Your task to perform on an android device: Add "alienware area 51" to the cart on ebay.com, then select checkout. Image 0: 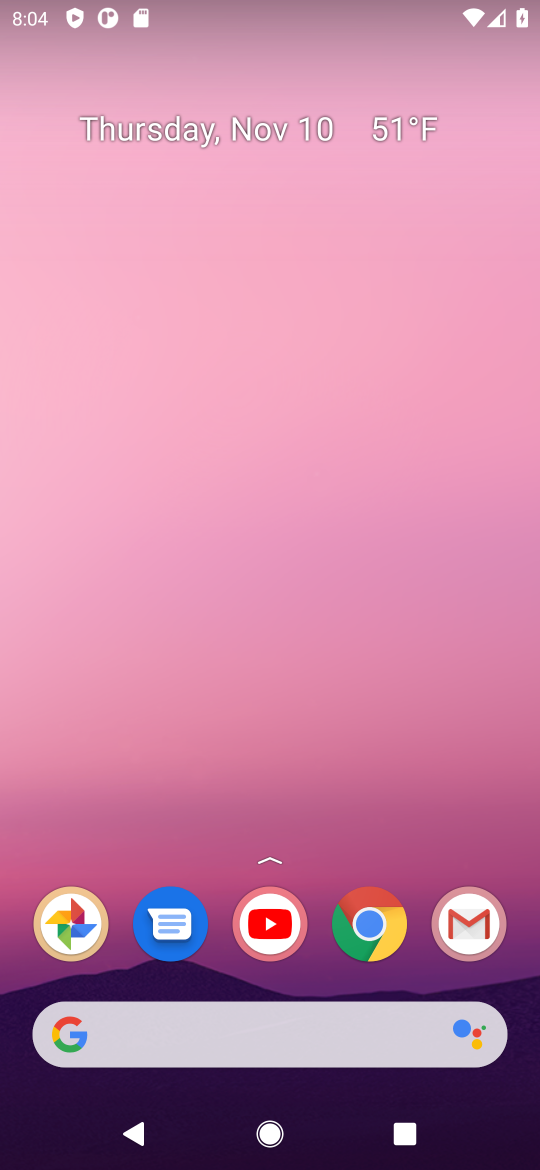
Step 0: click (380, 926)
Your task to perform on an android device: Add "alienware area 51" to the cart on ebay.com, then select checkout. Image 1: 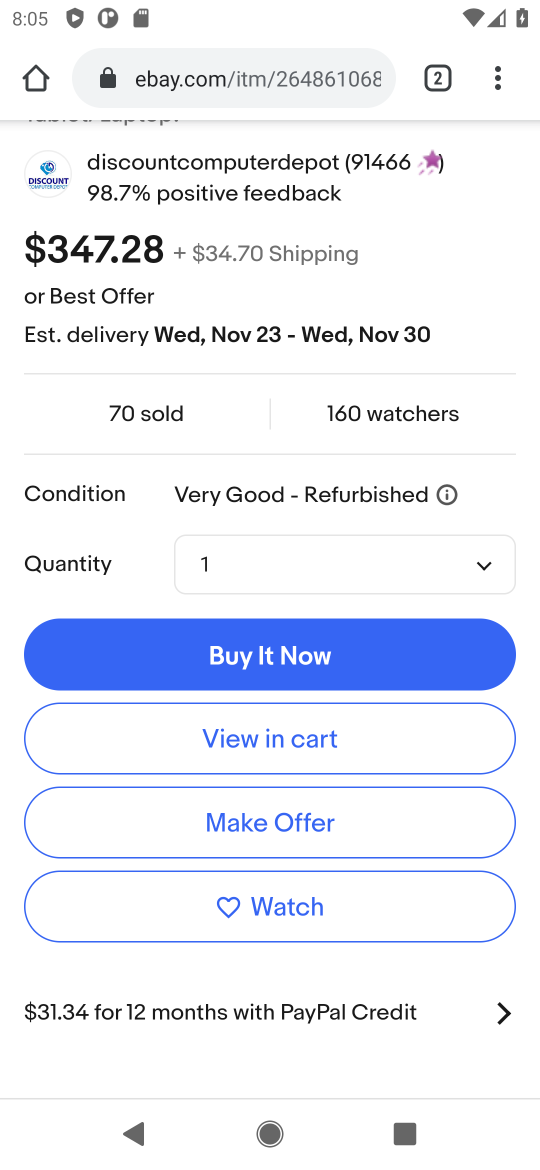
Step 1: drag from (224, 299) to (250, 802)
Your task to perform on an android device: Add "alienware area 51" to the cart on ebay.com, then select checkout. Image 2: 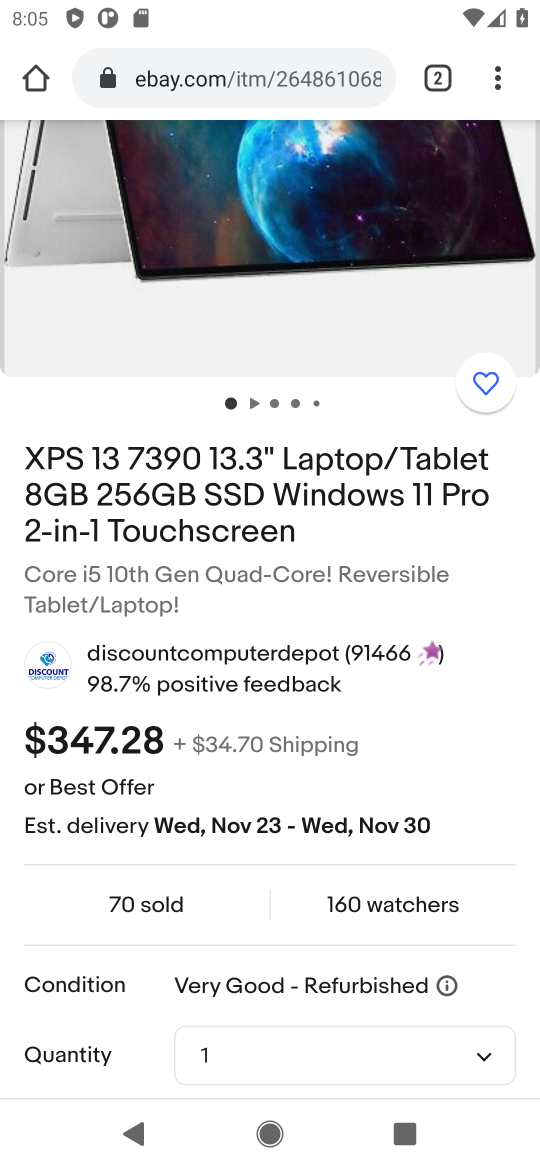
Step 2: press home button
Your task to perform on an android device: Add "alienware area 51" to the cart on ebay.com, then select checkout. Image 3: 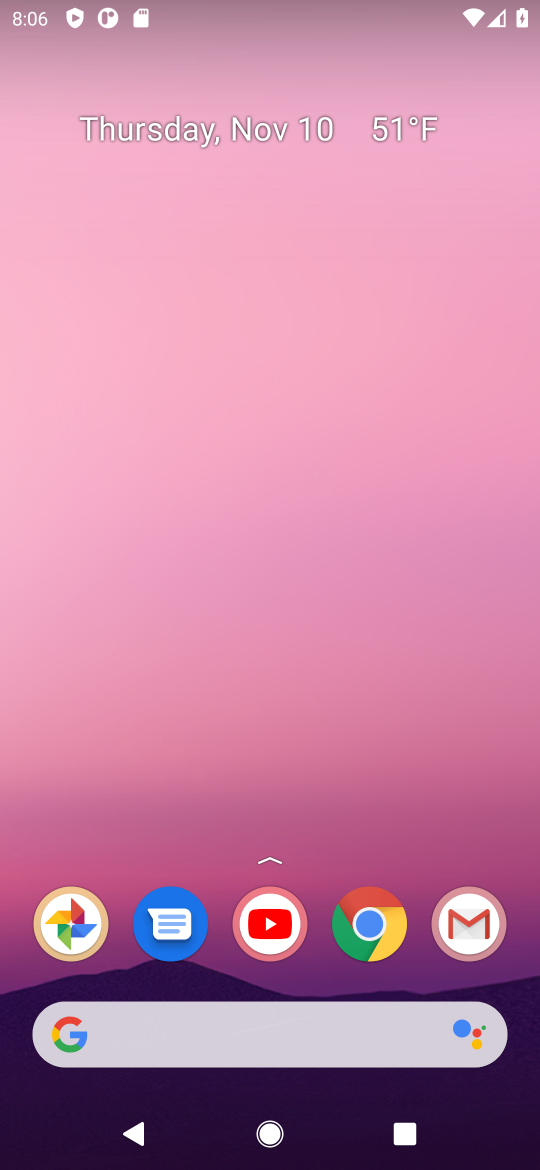
Step 3: click (370, 931)
Your task to perform on an android device: Add "alienware area 51" to the cart on ebay.com, then select checkout. Image 4: 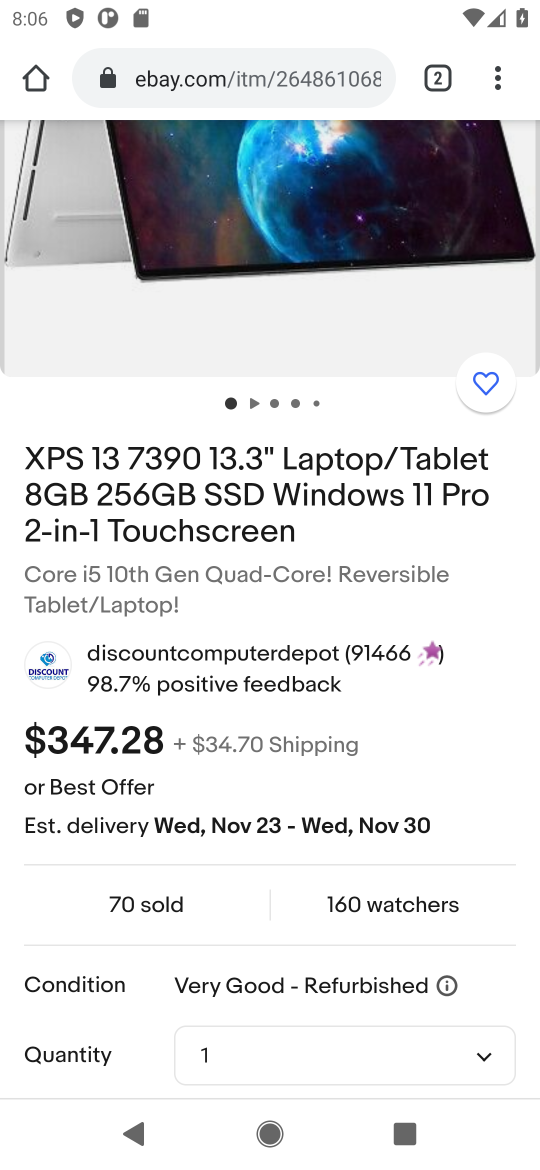
Step 4: click (232, 81)
Your task to perform on an android device: Add "alienware area 51" to the cart on ebay.com, then select checkout. Image 5: 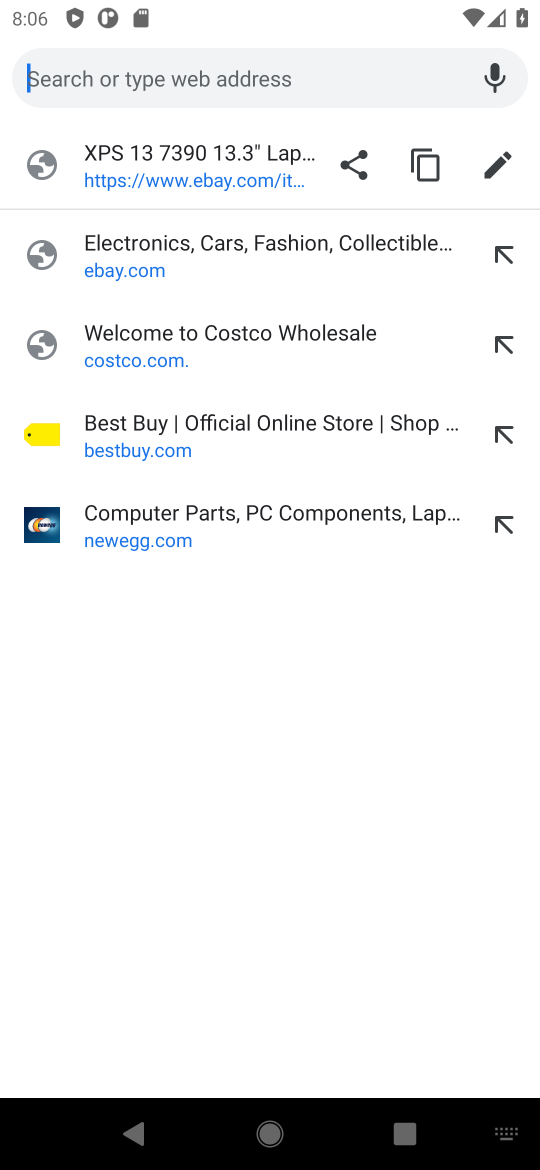
Step 5: click (114, 266)
Your task to perform on an android device: Add "alienware area 51" to the cart on ebay.com, then select checkout. Image 6: 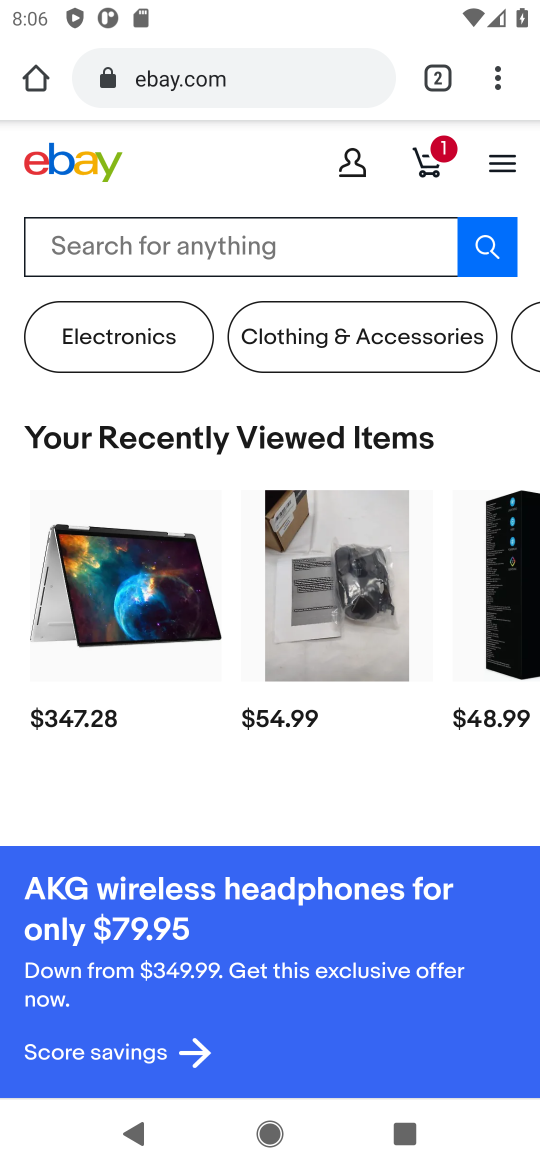
Step 6: click (142, 246)
Your task to perform on an android device: Add "alienware area 51" to the cart on ebay.com, then select checkout. Image 7: 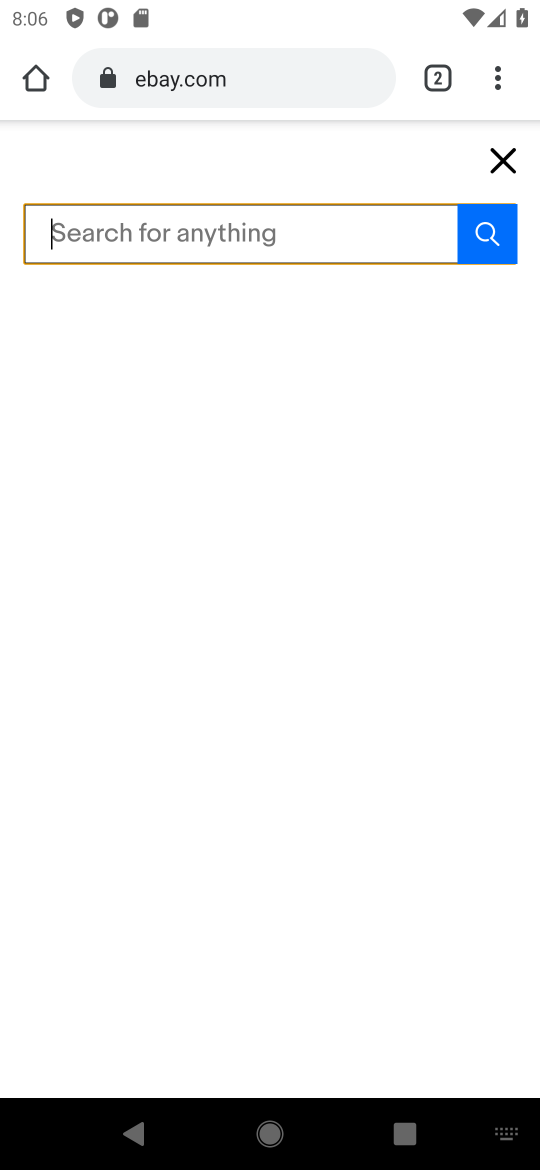
Step 7: type "alienware area 51"
Your task to perform on an android device: Add "alienware area 51" to the cart on ebay.com, then select checkout. Image 8: 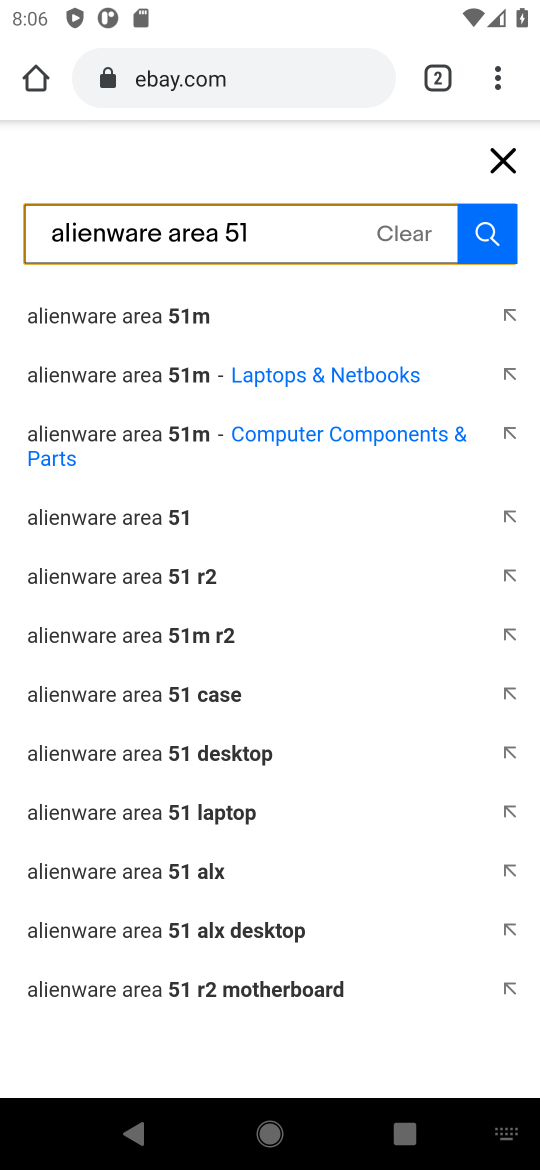
Step 8: click (95, 521)
Your task to perform on an android device: Add "alienware area 51" to the cart on ebay.com, then select checkout. Image 9: 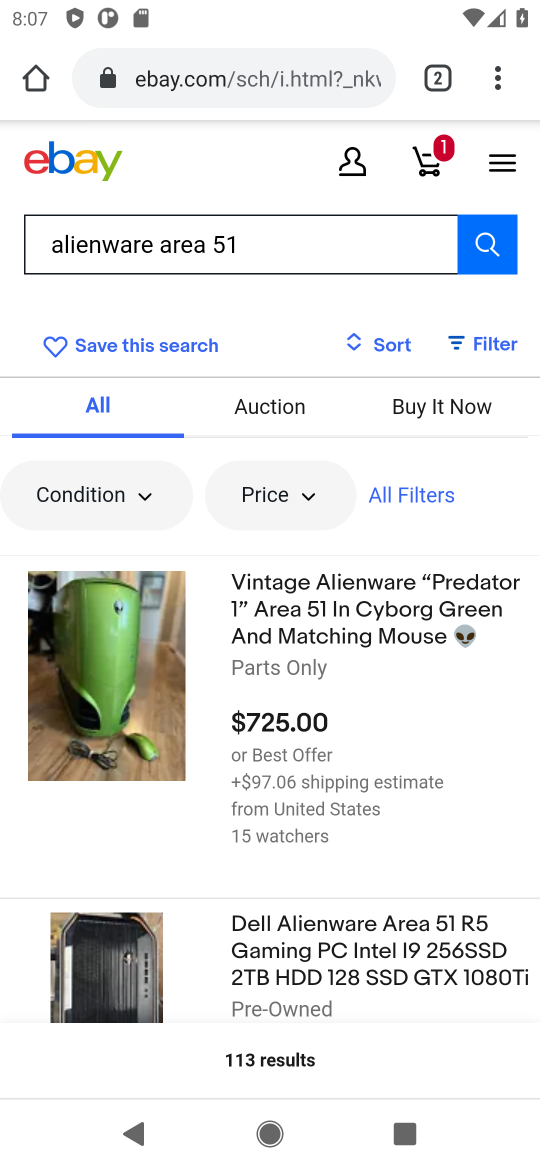
Step 9: drag from (324, 882) to (258, 448)
Your task to perform on an android device: Add "alienware area 51" to the cart on ebay.com, then select checkout. Image 10: 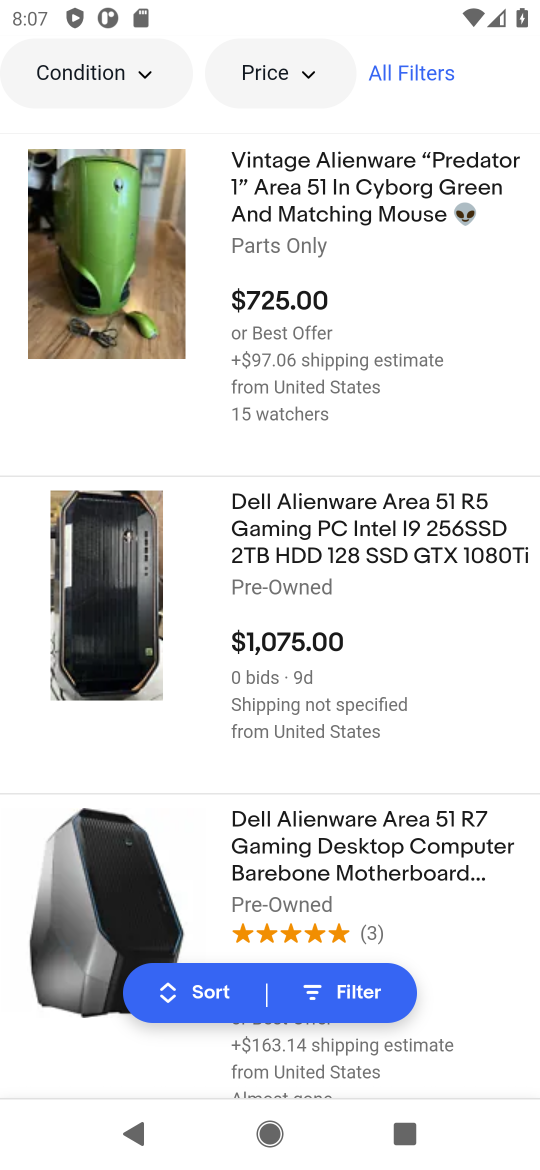
Step 10: drag from (235, 758) to (217, 448)
Your task to perform on an android device: Add "alienware area 51" to the cart on ebay.com, then select checkout. Image 11: 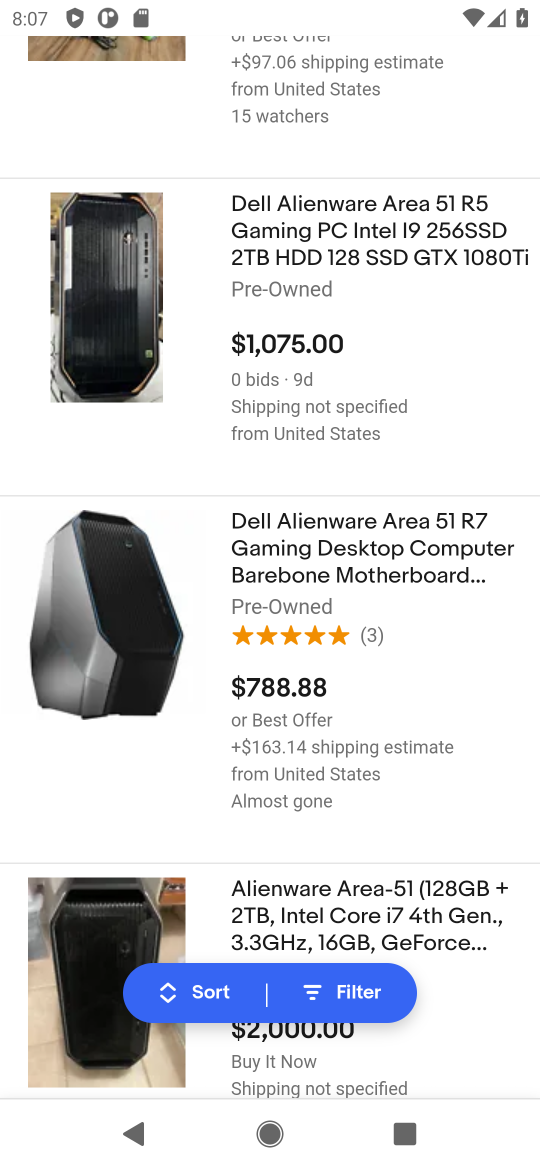
Step 11: click (134, 655)
Your task to perform on an android device: Add "alienware area 51" to the cart on ebay.com, then select checkout. Image 12: 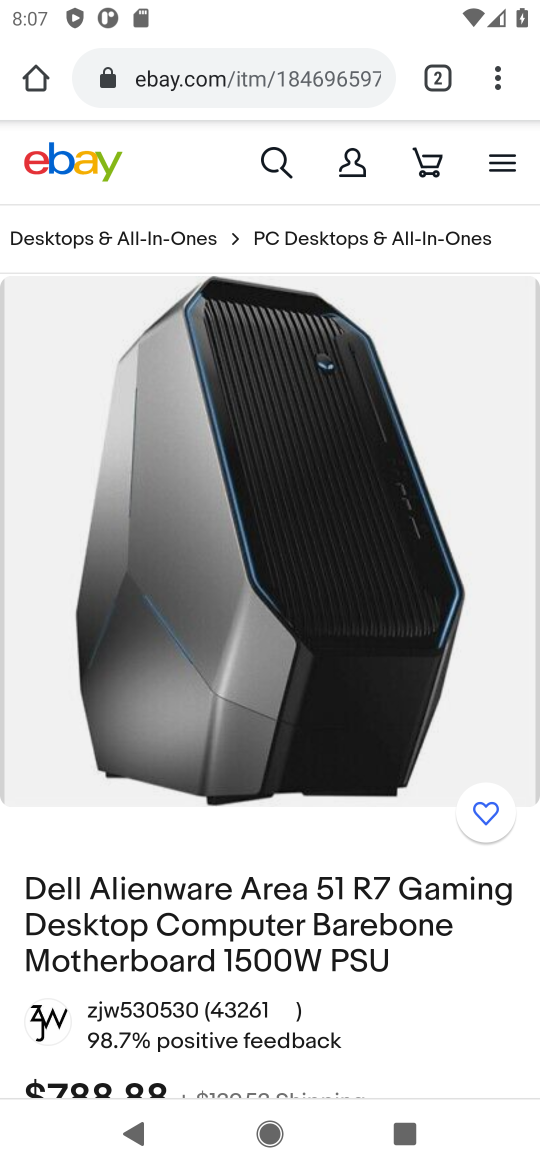
Step 12: drag from (263, 797) to (215, 293)
Your task to perform on an android device: Add "alienware area 51" to the cart on ebay.com, then select checkout. Image 13: 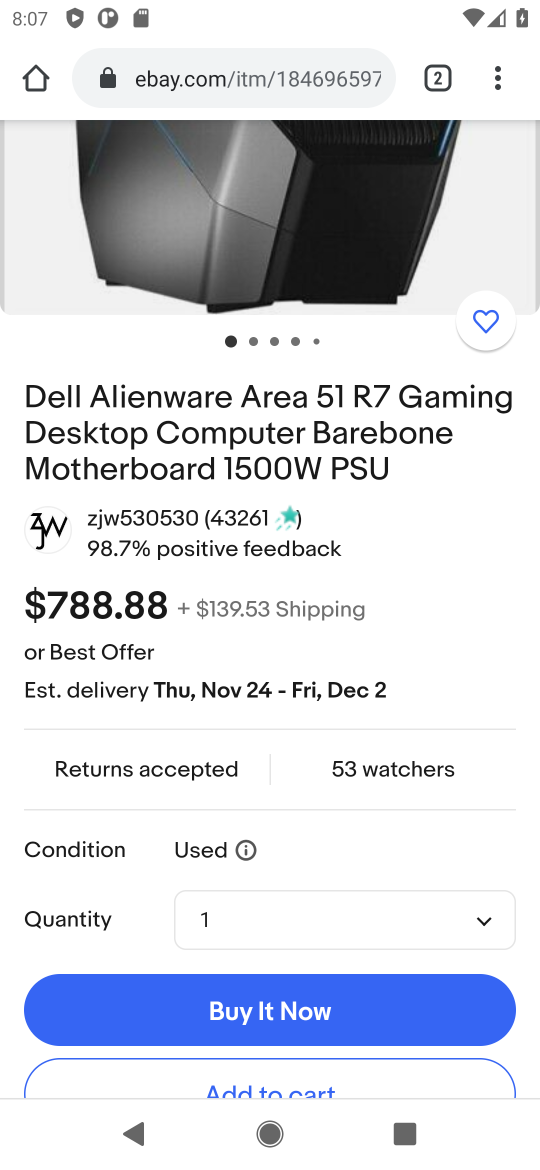
Step 13: drag from (205, 786) to (199, 469)
Your task to perform on an android device: Add "alienware area 51" to the cart on ebay.com, then select checkout. Image 14: 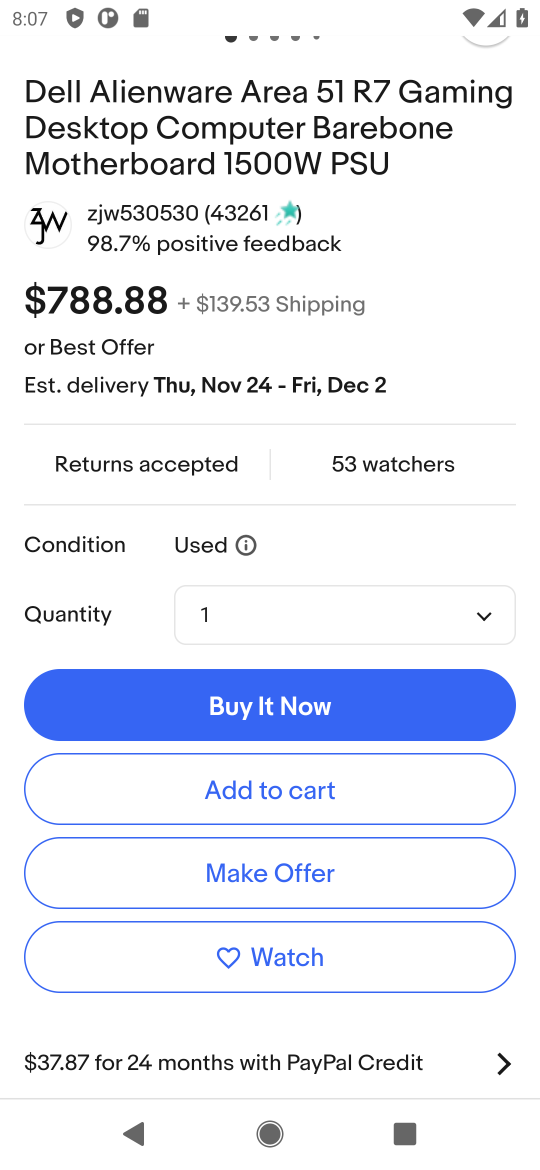
Step 14: click (237, 794)
Your task to perform on an android device: Add "alienware area 51" to the cart on ebay.com, then select checkout. Image 15: 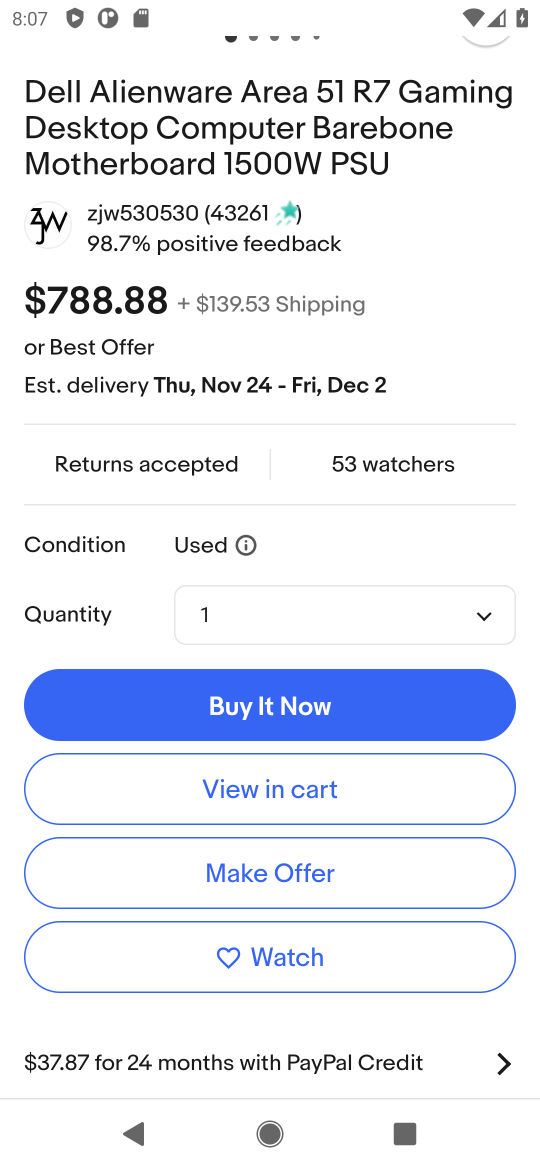
Step 15: click (237, 794)
Your task to perform on an android device: Add "alienware area 51" to the cart on ebay.com, then select checkout. Image 16: 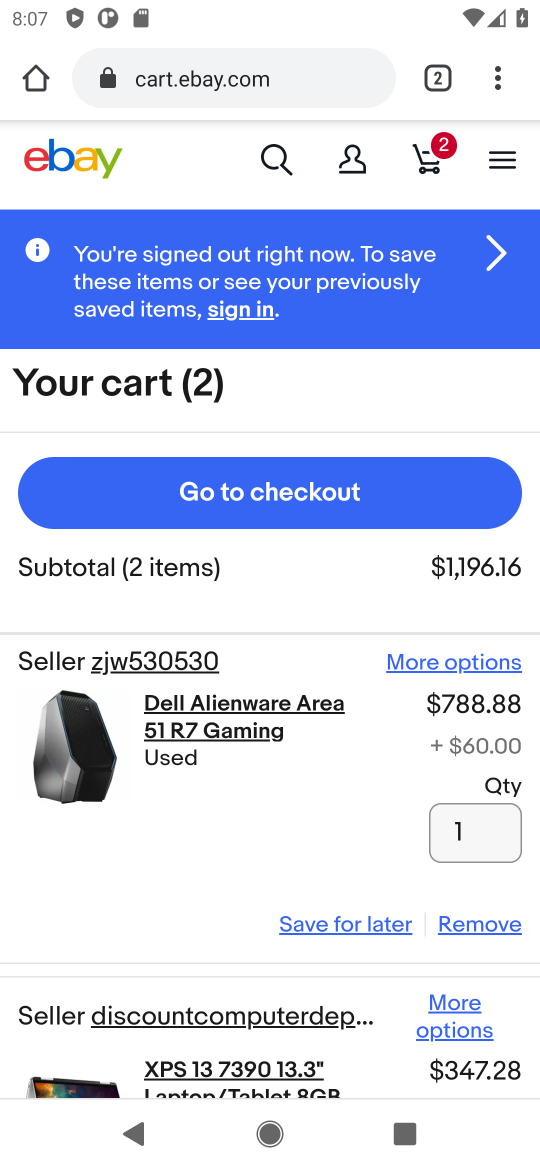
Step 16: click (248, 479)
Your task to perform on an android device: Add "alienware area 51" to the cart on ebay.com, then select checkout. Image 17: 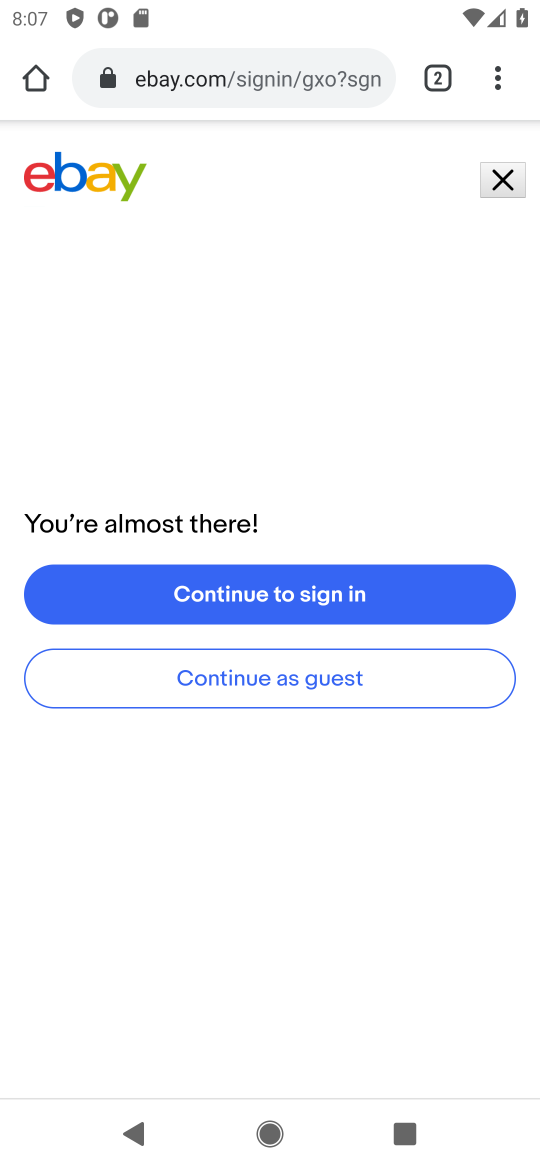
Step 17: task complete